Your task to perform on an android device: Open the web browser Image 0: 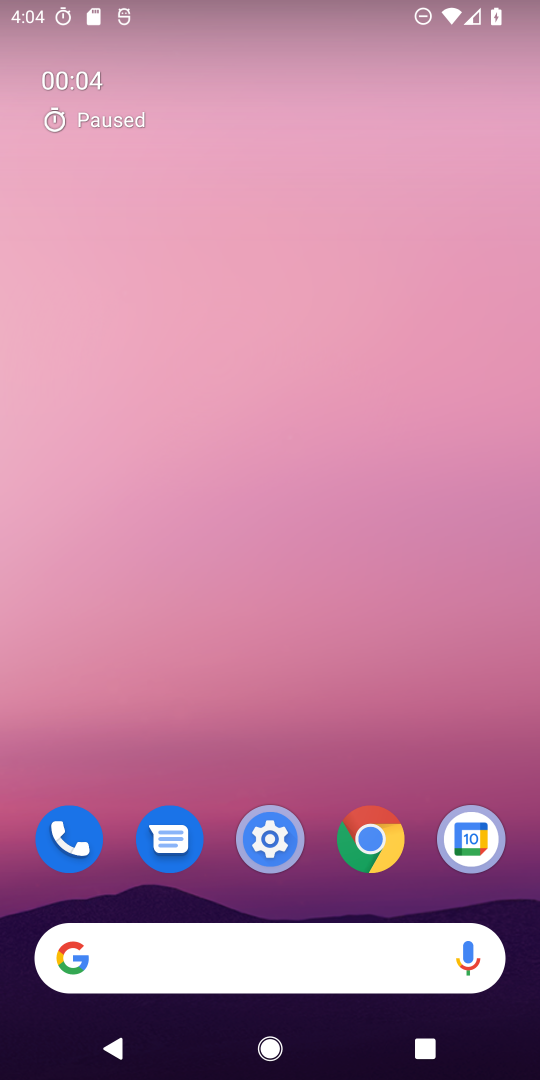
Step 0: drag from (2, 524) to (409, 563)
Your task to perform on an android device: Open the web browser Image 1: 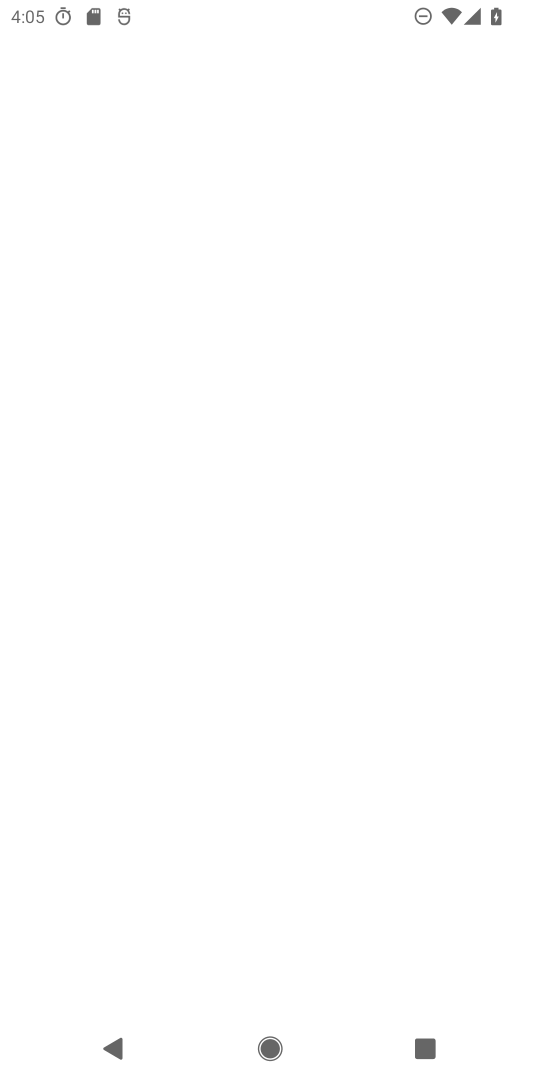
Step 1: task complete